Your task to perform on an android device: Open battery settings Image 0: 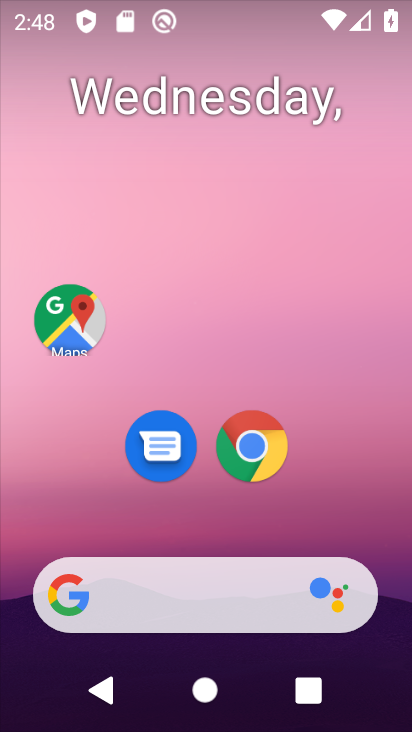
Step 0: drag from (209, 524) to (230, 58)
Your task to perform on an android device: Open battery settings Image 1: 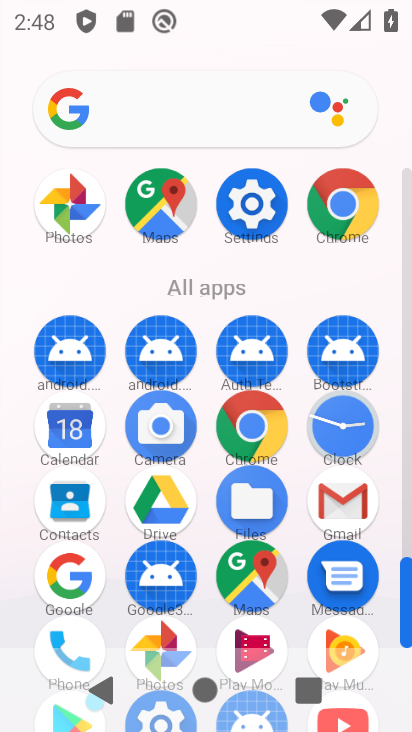
Step 1: click (250, 185)
Your task to perform on an android device: Open battery settings Image 2: 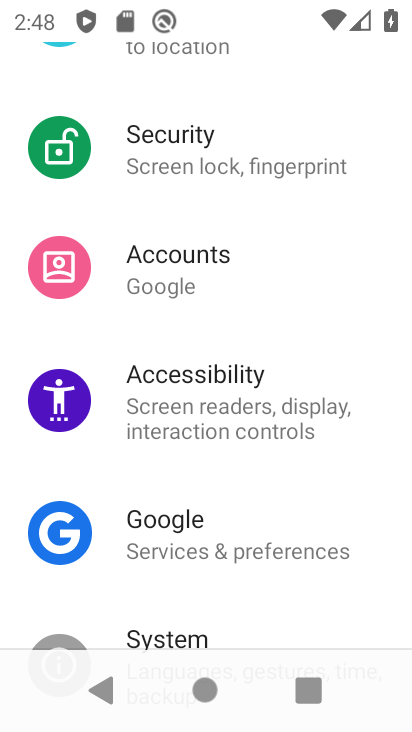
Step 2: drag from (315, 270) to (288, 626)
Your task to perform on an android device: Open battery settings Image 3: 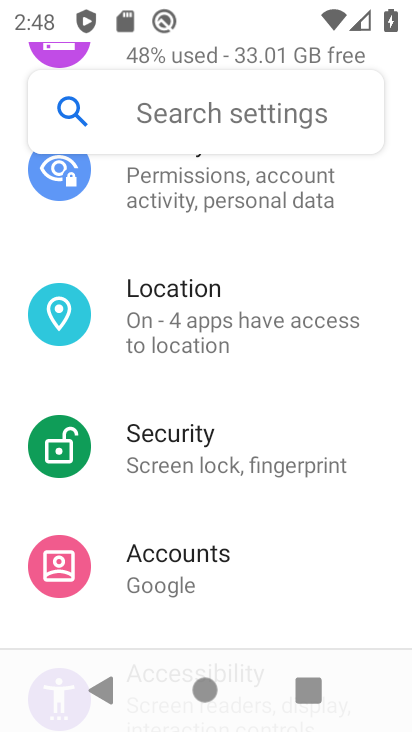
Step 3: drag from (305, 285) to (340, 540)
Your task to perform on an android device: Open battery settings Image 4: 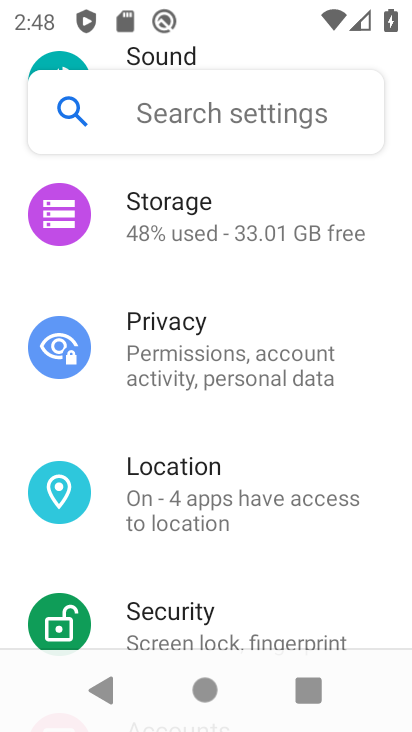
Step 4: drag from (339, 306) to (321, 573)
Your task to perform on an android device: Open battery settings Image 5: 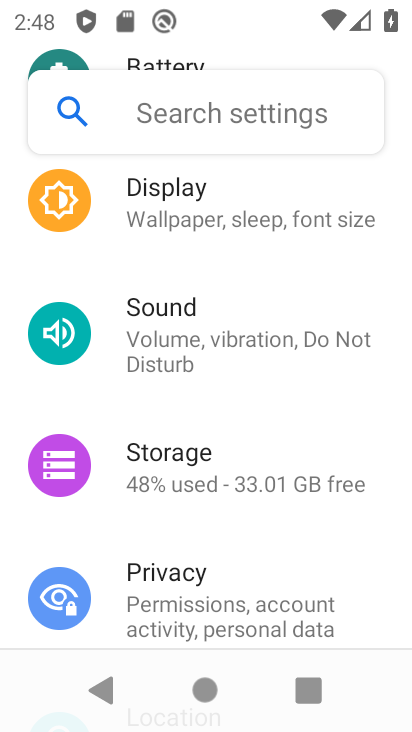
Step 5: drag from (312, 293) to (279, 571)
Your task to perform on an android device: Open battery settings Image 6: 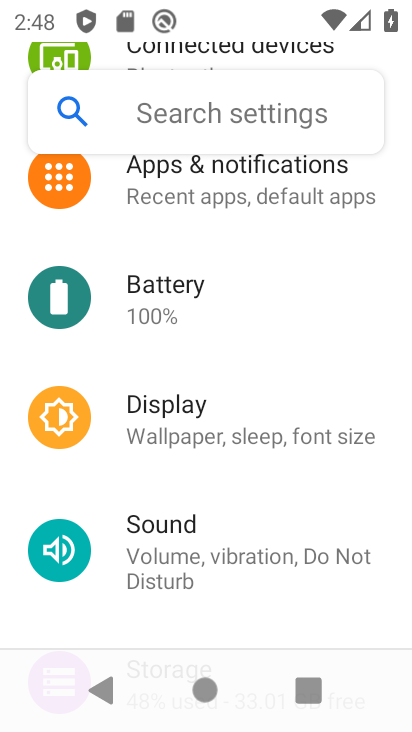
Step 6: click (285, 310)
Your task to perform on an android device: Open battery settings Image 7: 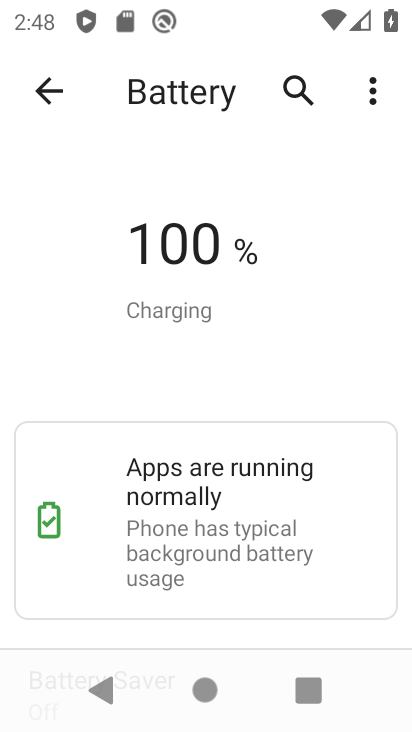
Step 7: task complete